Your task to perform on an android device: Open ESPN.com Image 0: 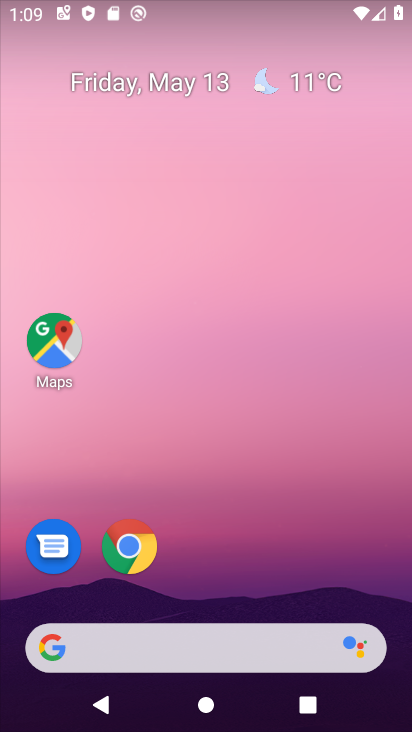
Step 0: drag from (231, 616) to (290, 210)
Your task to perform on an android device: Open ESPN.com Image 1: 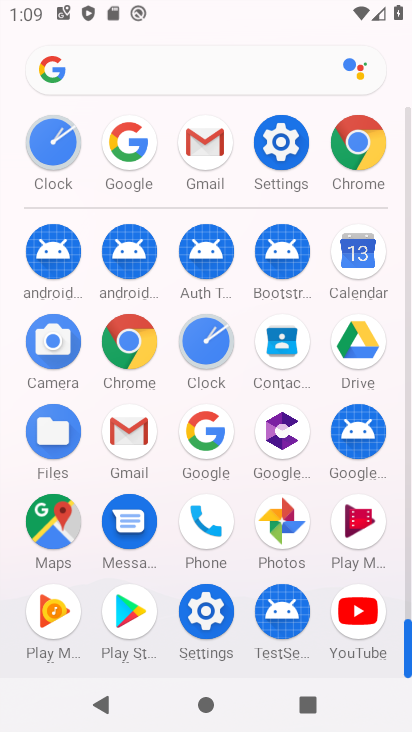
Step 1: click (336, 152)
Your task to perform on an android device: Open ESPN.com Image 2: 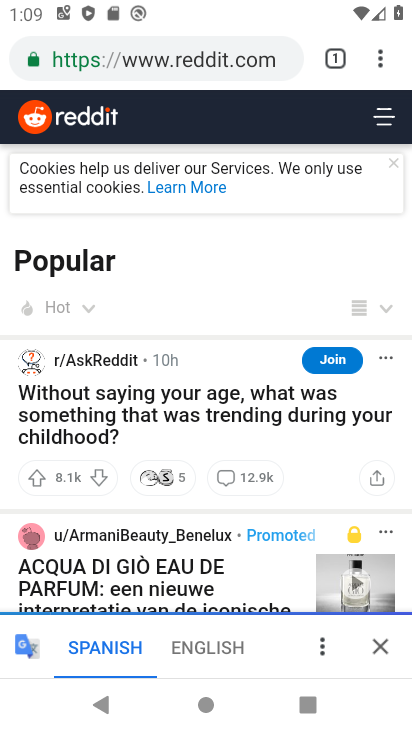
Step 2: click (239, 63)
Your task to perform on an android device: Open ESPN.com Image 3: 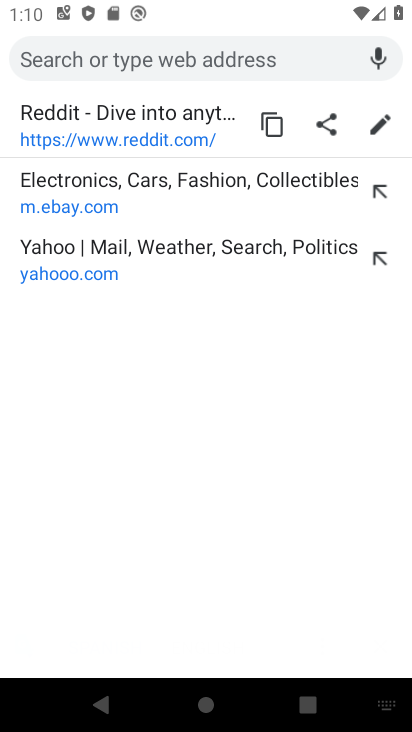
Step 3: type "espn"
Your task to perform on an android device: Open ESPN.com Image 4: 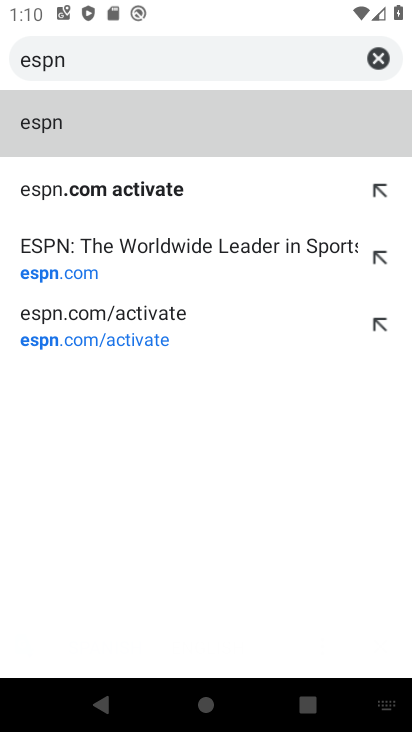
Step 4: click (124, 270)
Your task to perform on an android device: Open ESPN.com Image 5: 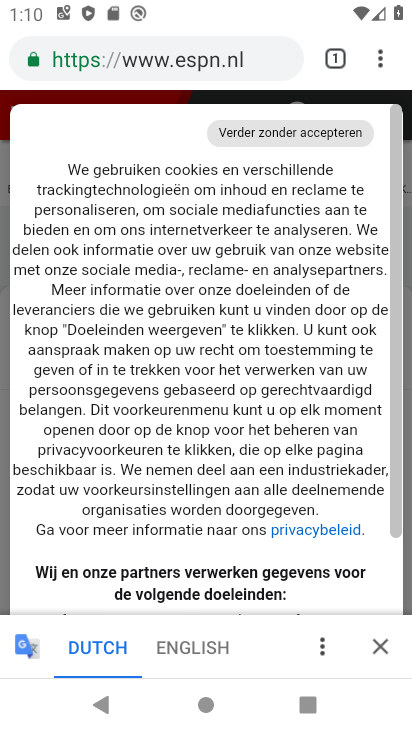
Step 5: task complete